Your task to perform on an android device: Search for flights from NYC to San Francisco Image 0: 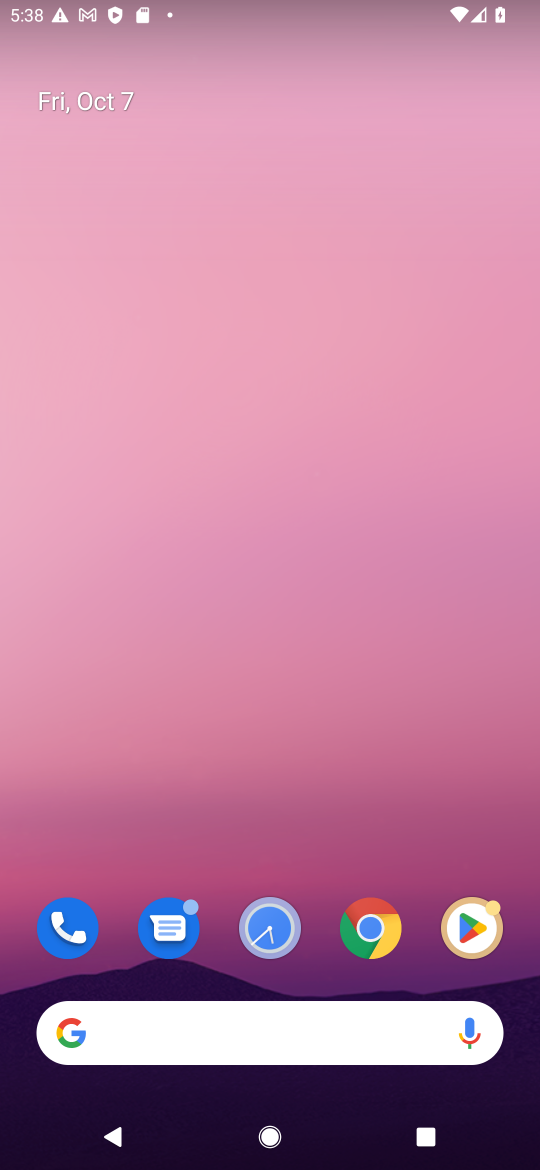
Step 0: drag from (310, 898) to (250, 131)
Your task to perform on an android device: Search for flights from NYC to San Francisco Image 1: 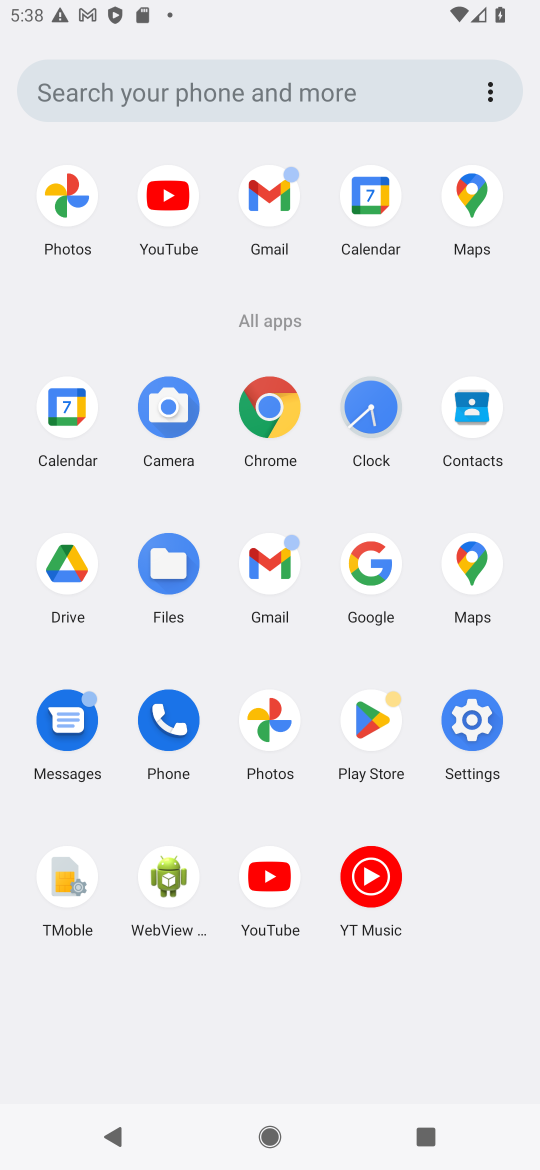
Step 1: click (374, 578)
Your task to perform on an android device: Search for flights from NYC to San Francisco Image 2: 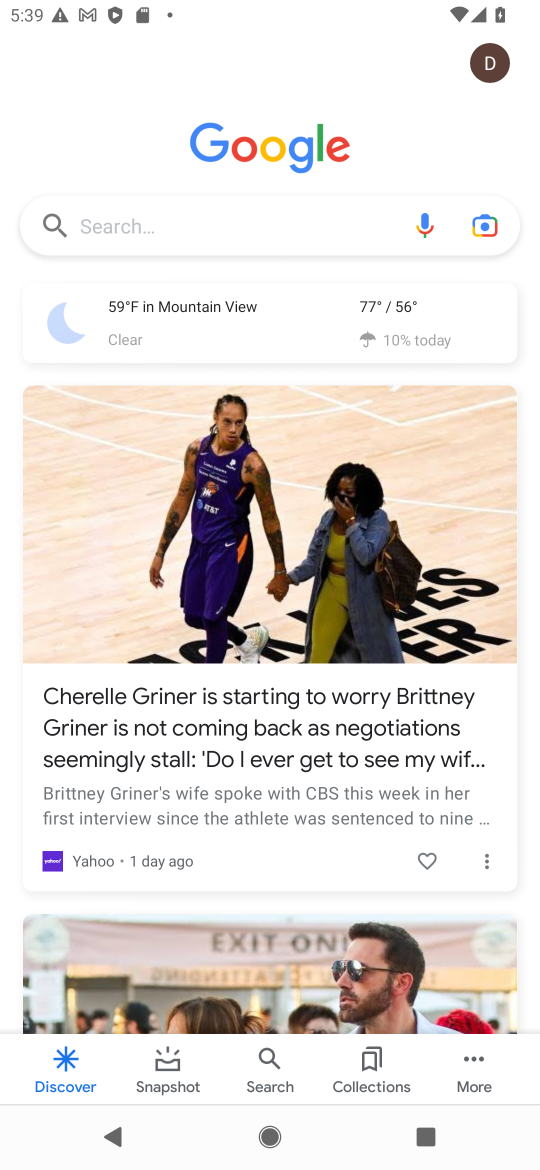
Step 2: click (243, 222)
Your task to perform on an android device: Search for flights from NYC to San Francisco Image 3: 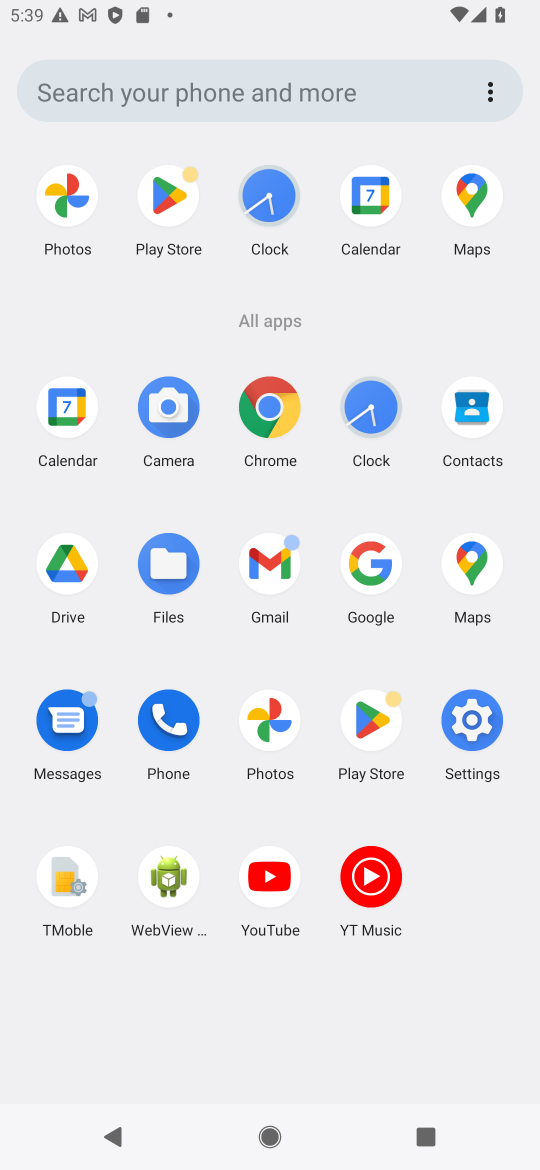
Step 3: type "flights from NYC to San Francisco"
Your task to perform on an android device: Search for flights from NYC to San Francisco Image 4: 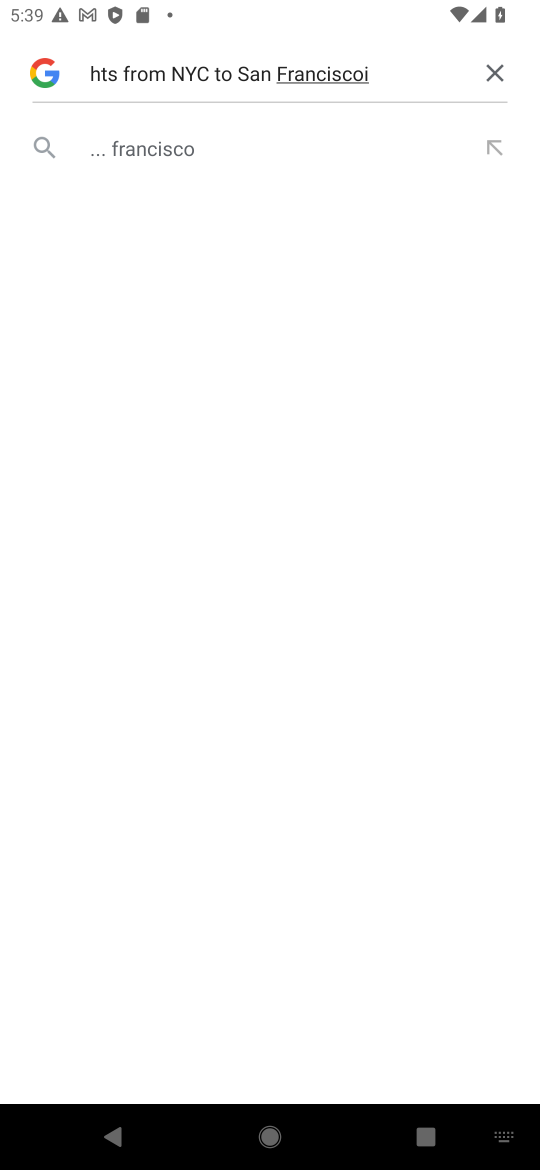
Step 4: click (302, 139)
Your task to perform on an android device: Search for flights from NYC to San Francisco Image 5: 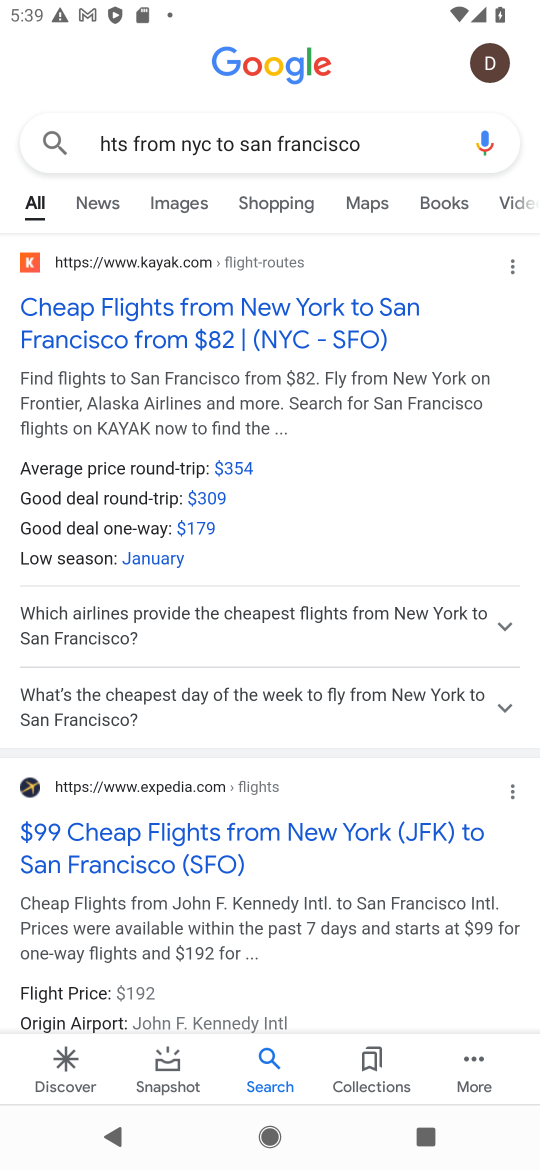
Step 5: task complete